Your task to perform on an android device: change the clock display to show seconds Image 0: 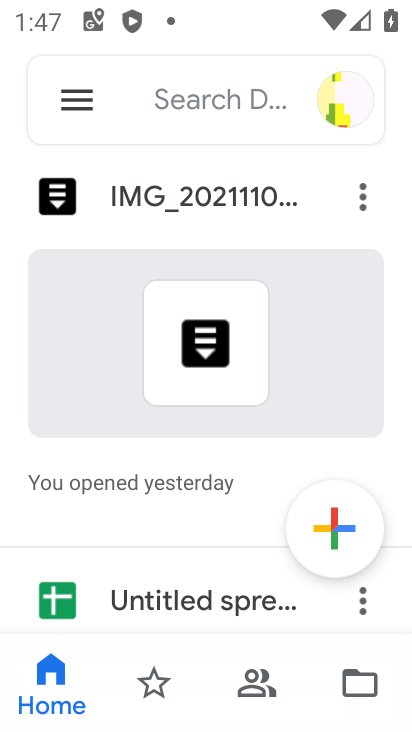
Step 0: press home button
Your task to perform on an android device: change the clock display to show seconds Image 1: 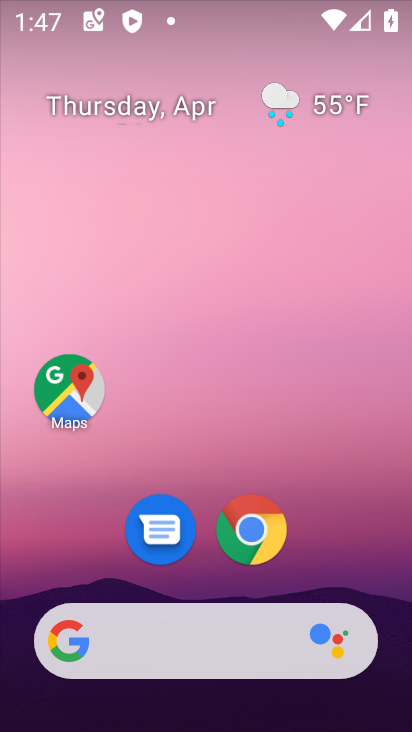
Step 1: drag from (212, 583) to (225, 250)
Your task to perform on an android device: change the clock display to show seconds Image 2: 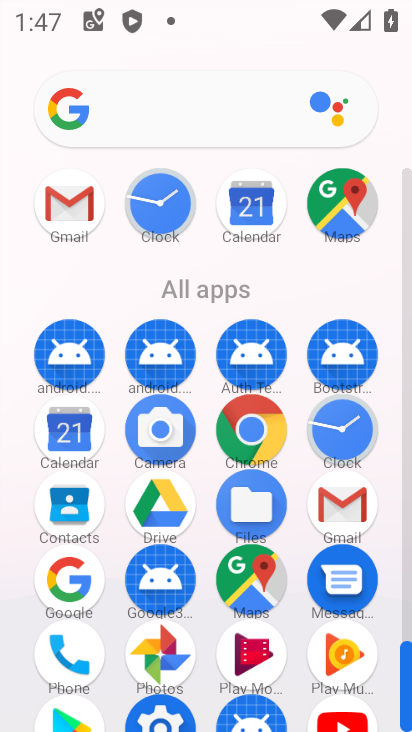
Step 2: click (340, 443)
Your task to perform on an android device: change the clock display to show seconds Image 3: 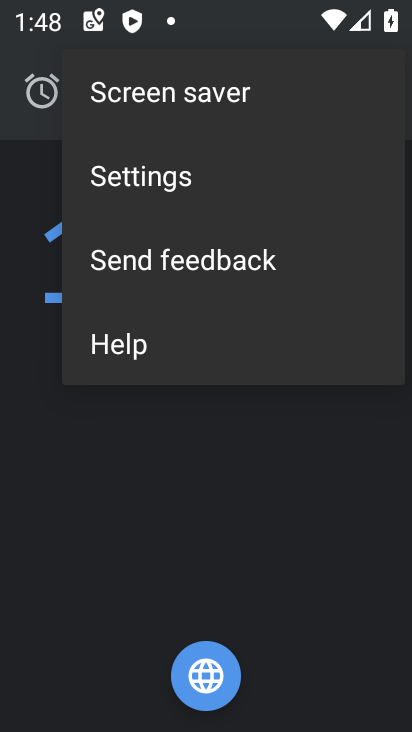
Step 3: click (221, 185)
Your task to perform on an android device: change the clock display to show seconds Image 4: 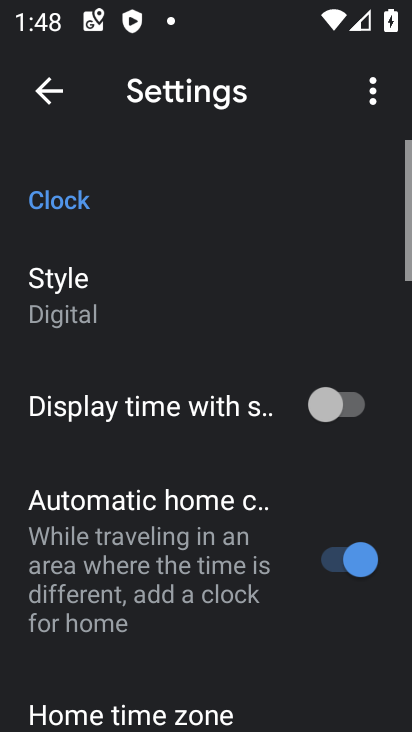
Step 4: click (330, 417)
Your task to perform on an android device: change the clock display to show seconds Image 5: 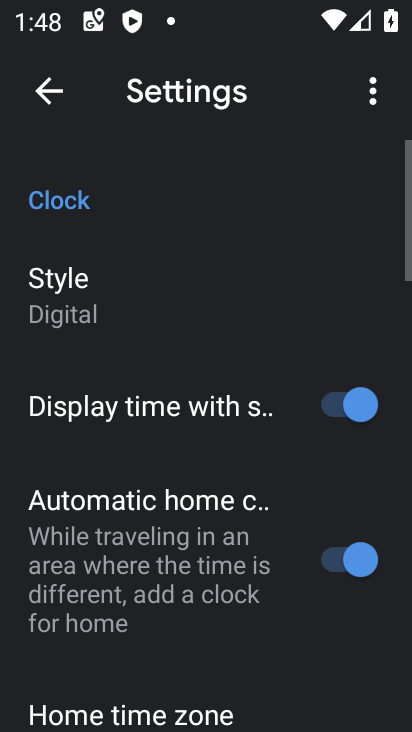
Step 5: task complete